Your task to perform on an android device: allow notifications from all sites in the chrome app Image 0: 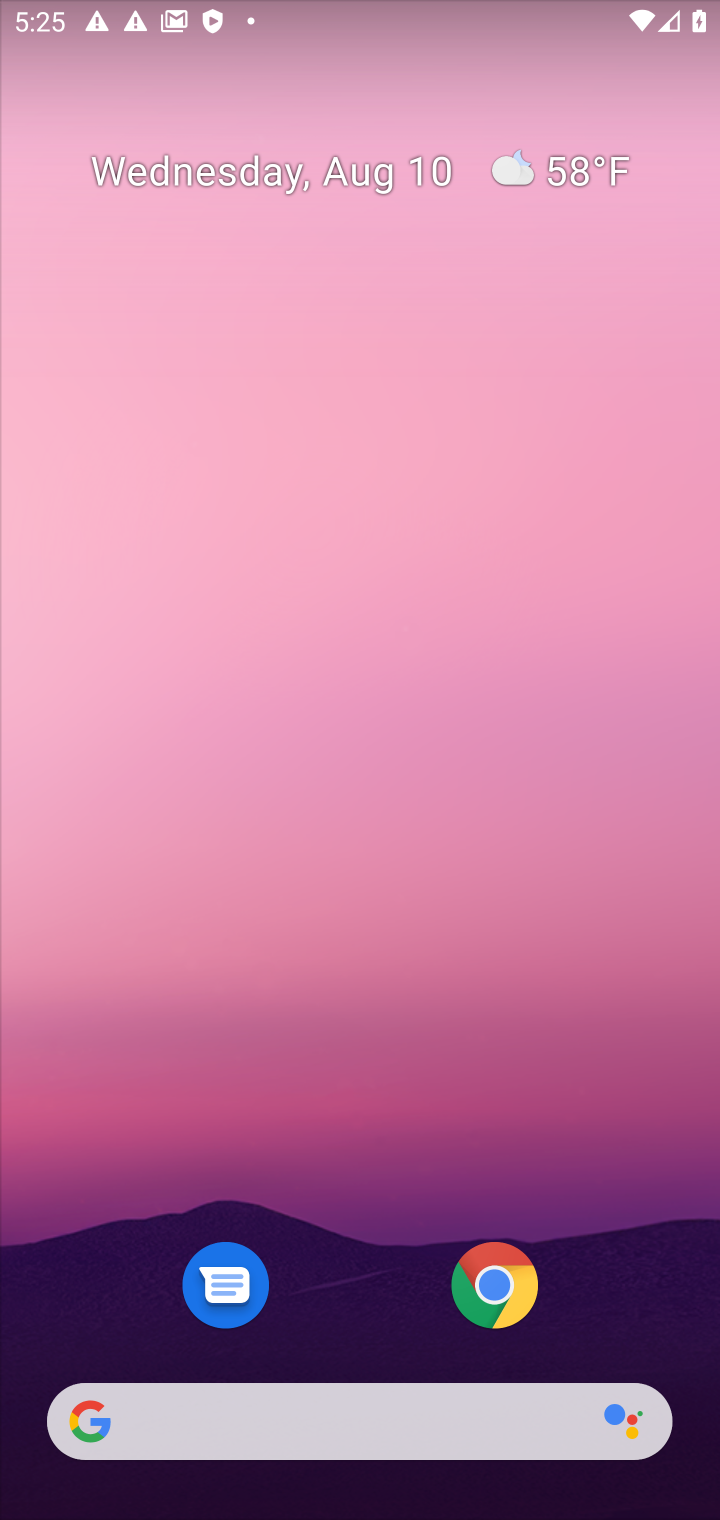
Step 0: click (515, 1303)
Your task to perform on an android device: allow notifications from all sites in the chrome app Image 1: 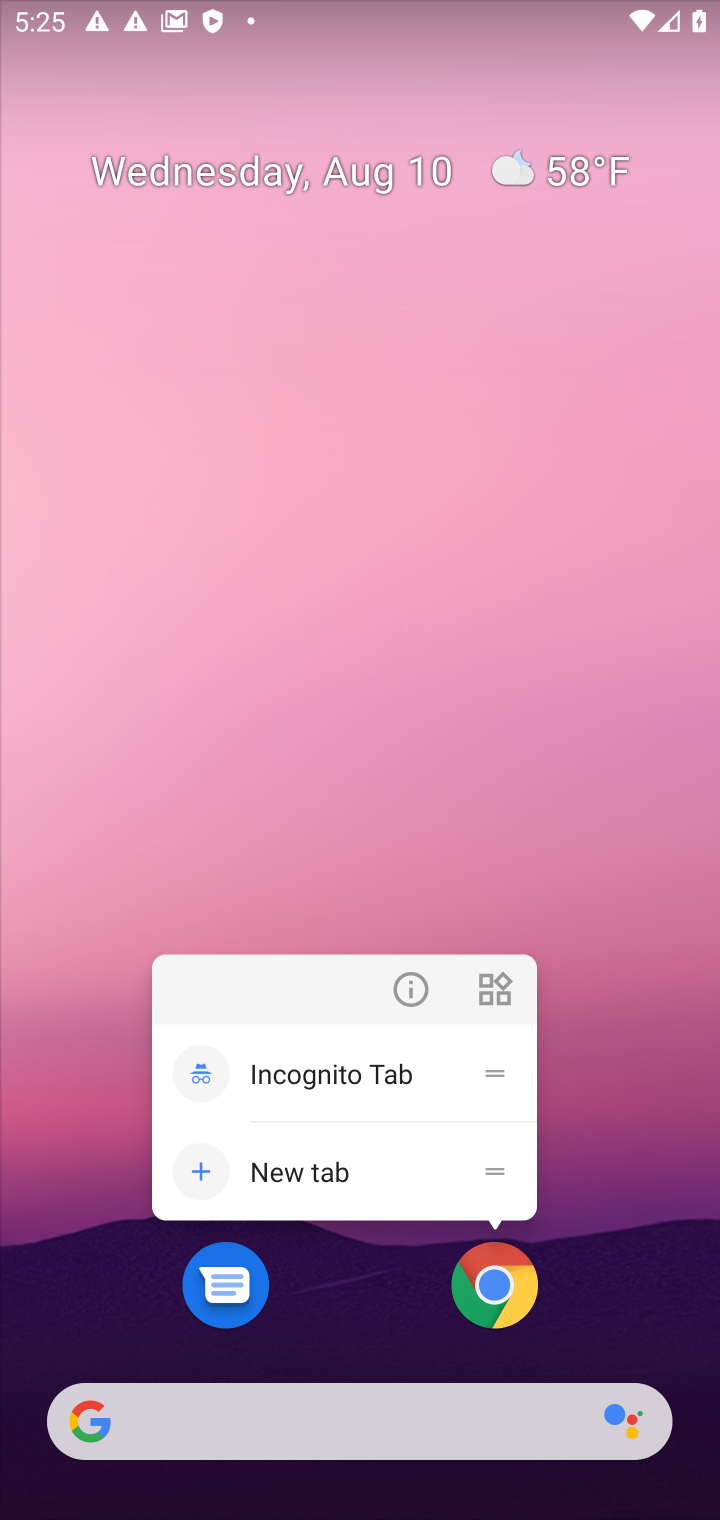
Step 1: click (404, 1002)
Your task to perform on an android device: allow notifications from all sites in the chrome app Image 2: 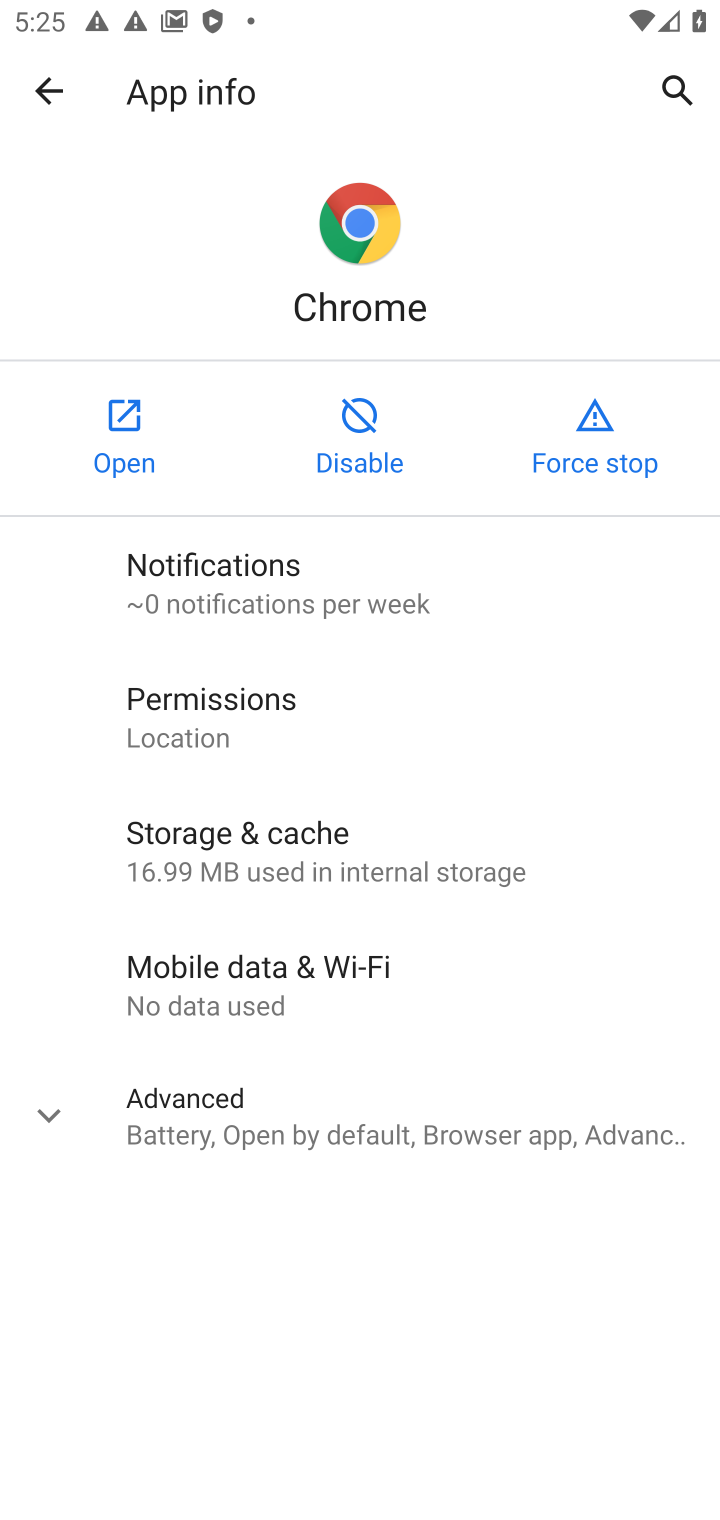
Step 2: click (245, 698)
Your task to perform on an android device: allow notifications from all sites in the chrome app Image 3: 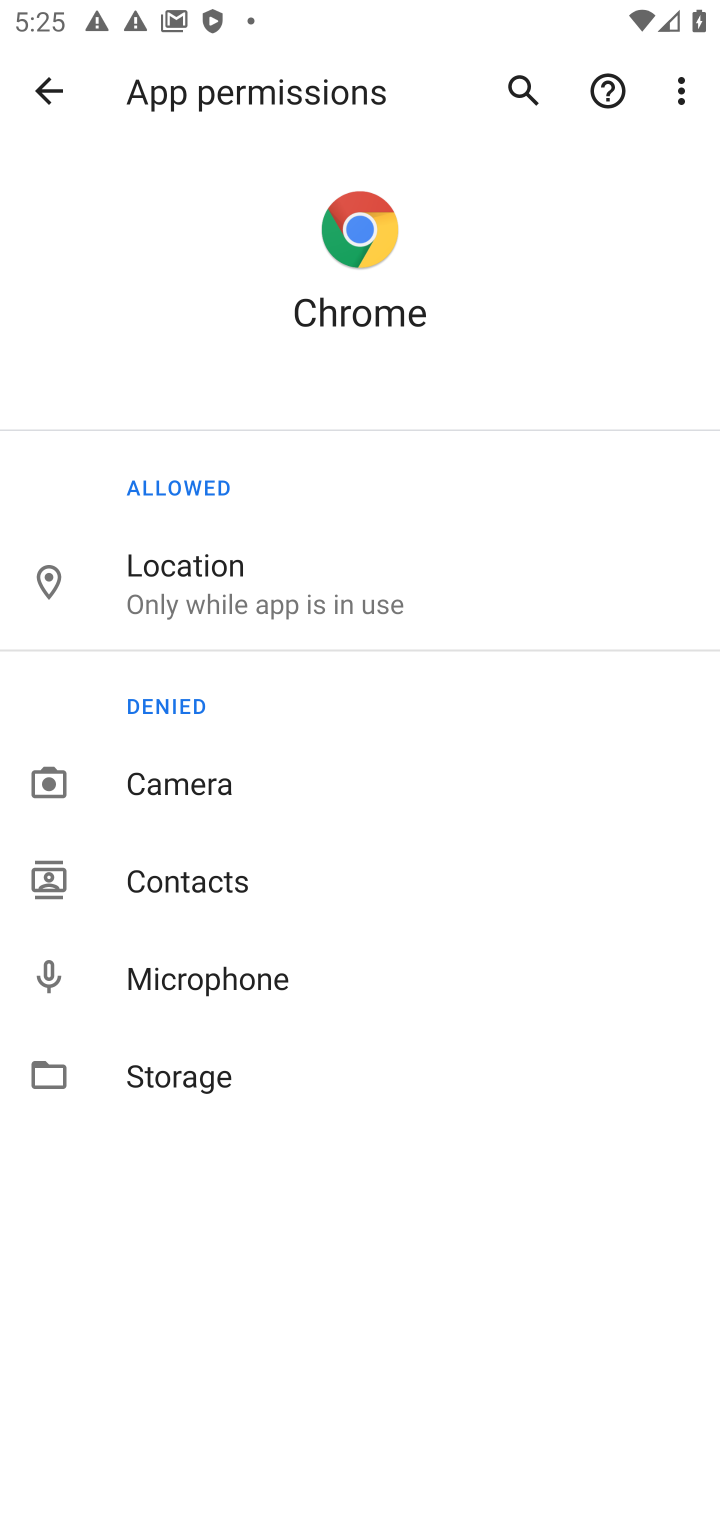
Step 3: click (158, 1001)
Your task to perform on an android device: allow notifications from all sites in the chrome app Image 4: 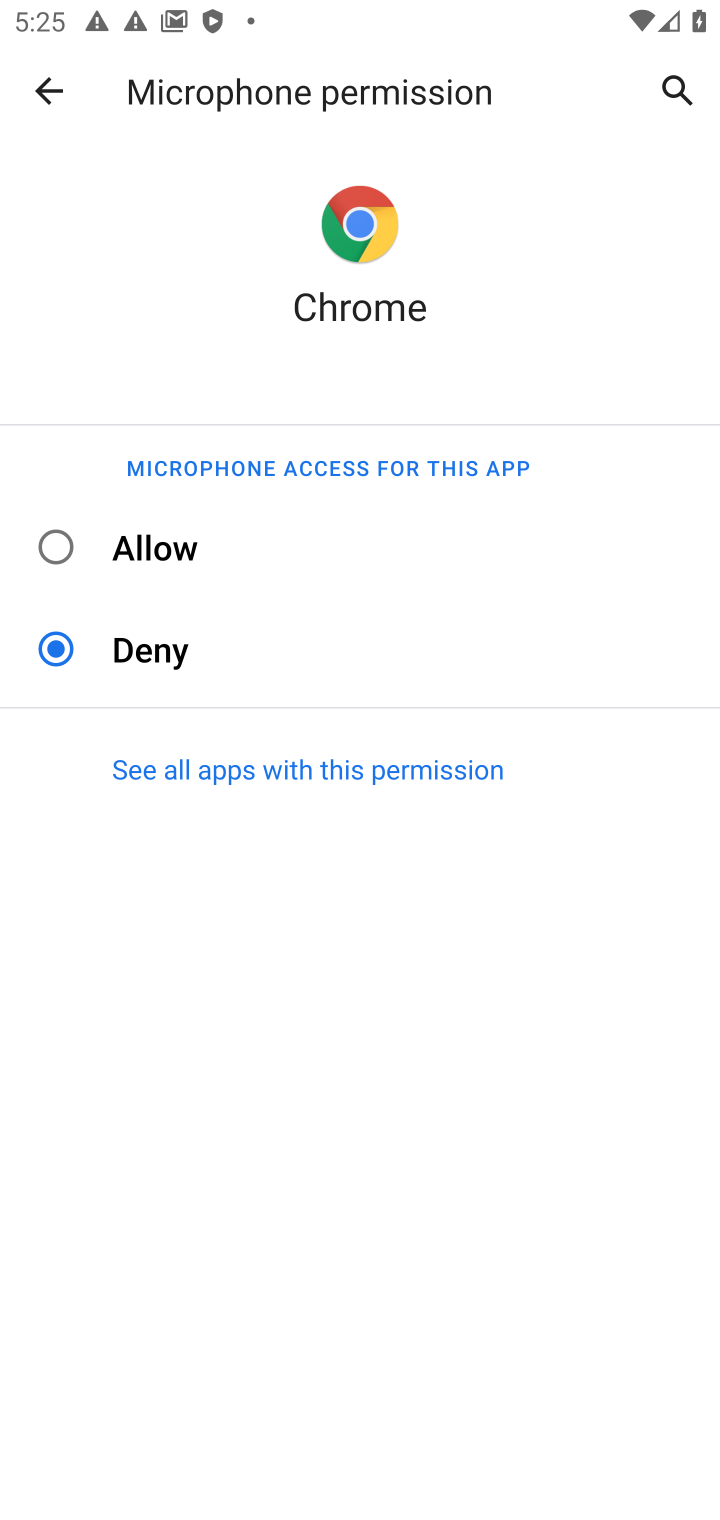
Step 4: click (135, 581)
Your task to perform on an android device: allow notifications from all sites in the chrome app Image 5: 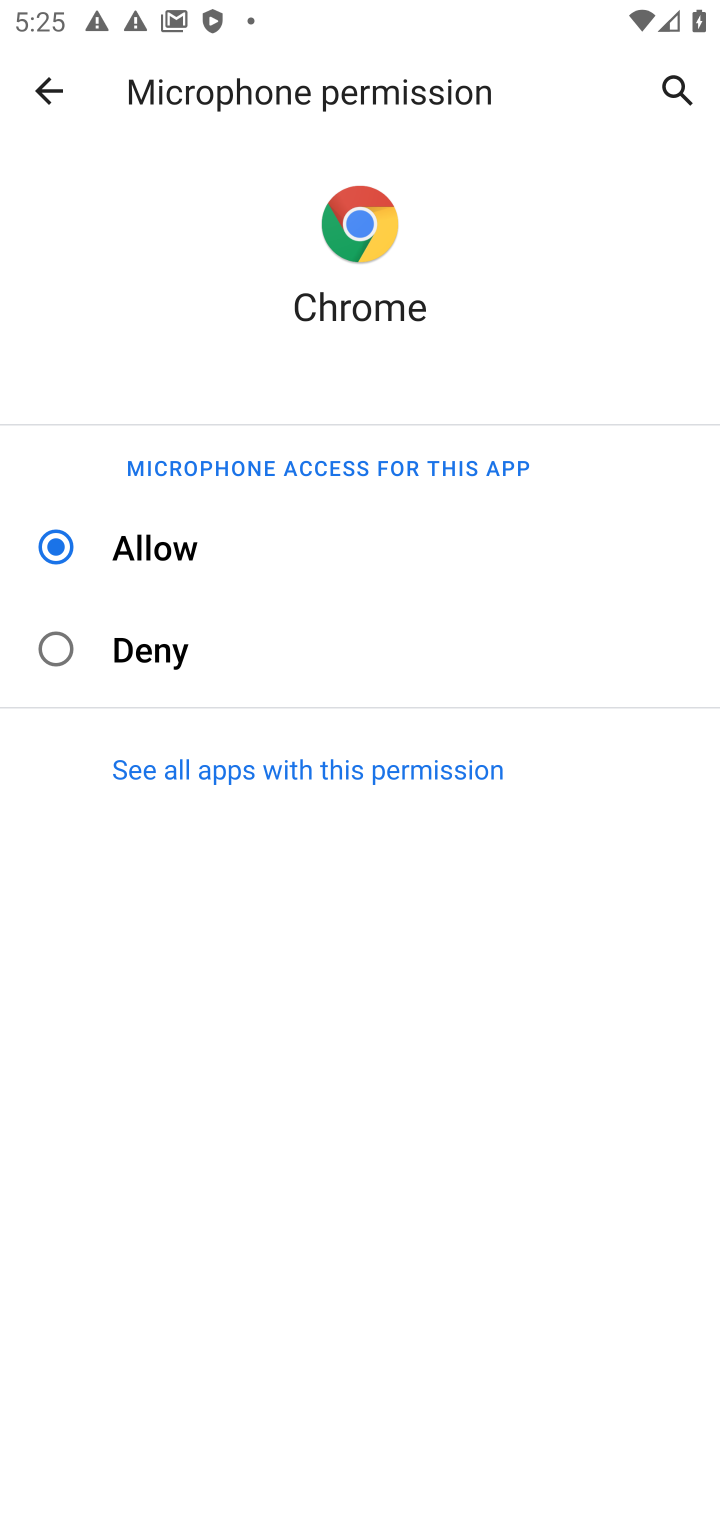
Step 5: click (53, 79)
Your task to perform on an android device: allow notifications from all sites in the chrome app Image 6: 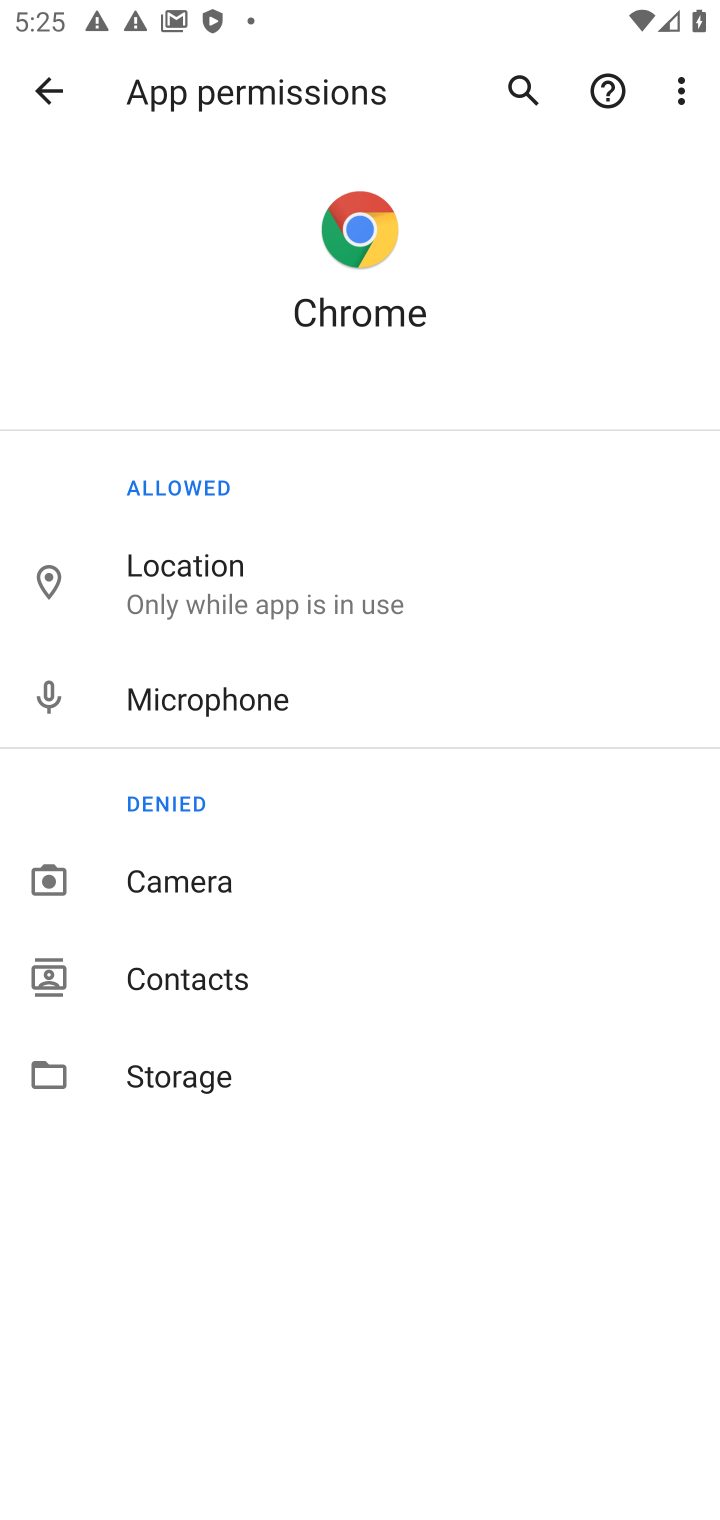
Step 6: click (173, 881)
Your task to perform on an android device: allow notifications from all sites in the chrome app Image 7: 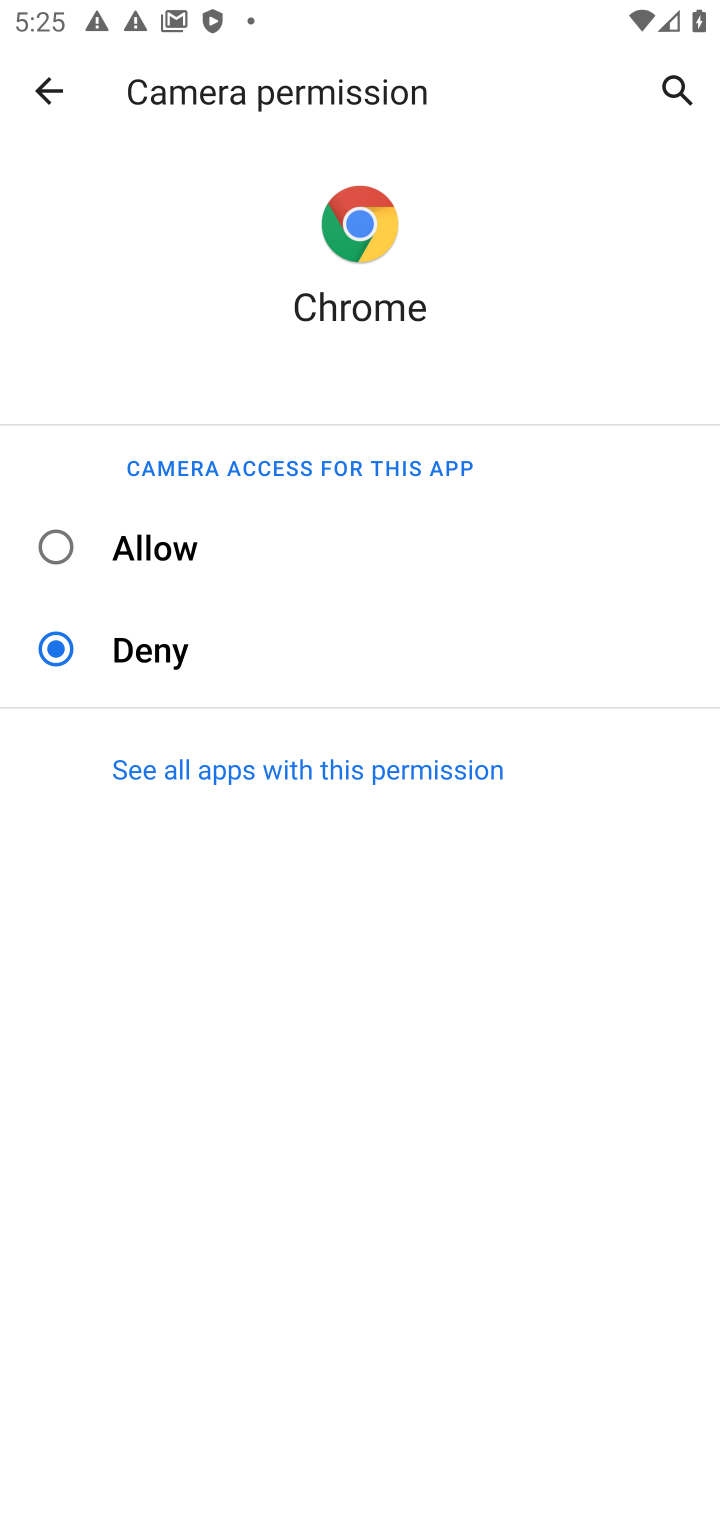
Step 7: click (66, 561)
Your task to perform on an android device: allow notifications from all sites in the chrome app Image 8: 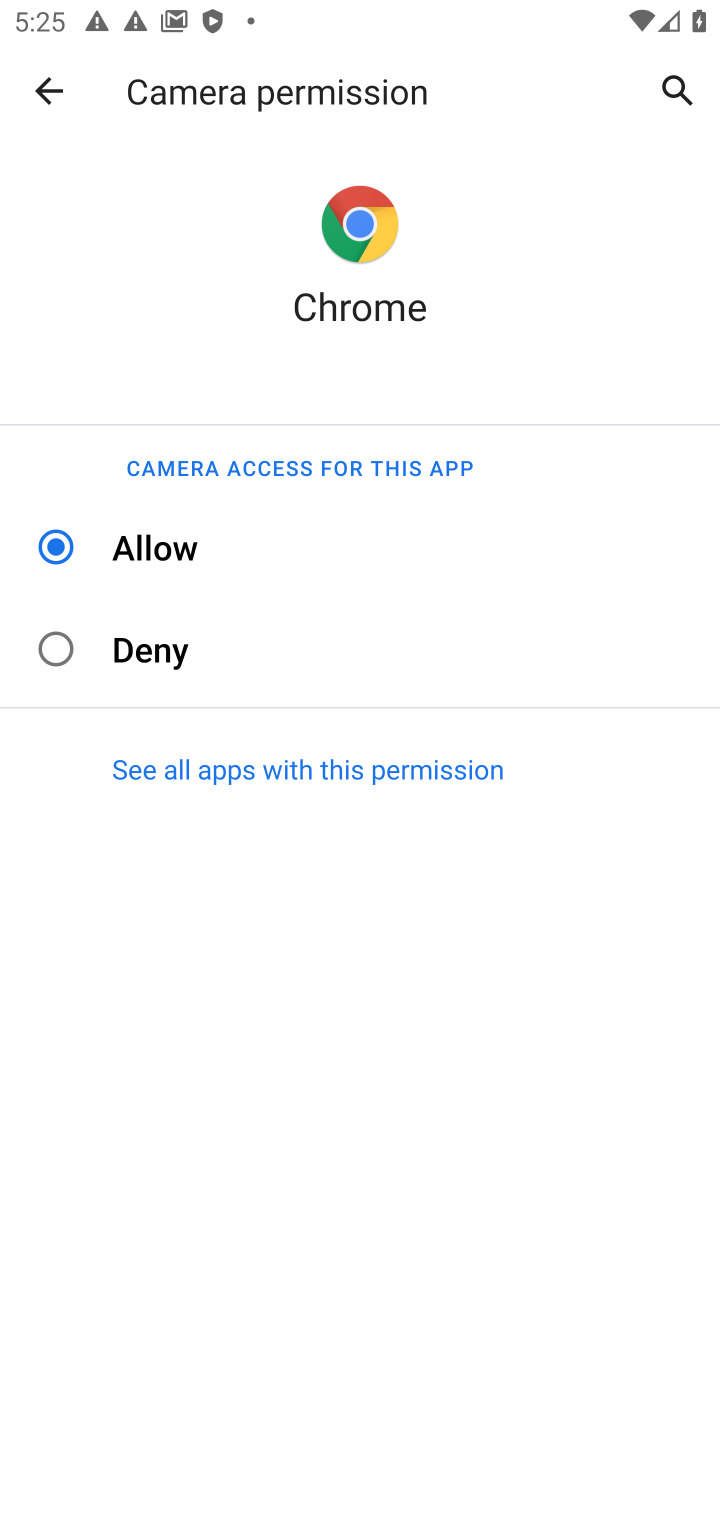
Step 8: click (54, 77)
Your task to perform on an android device: allow notifications from all sites in the chrome app Image 9: 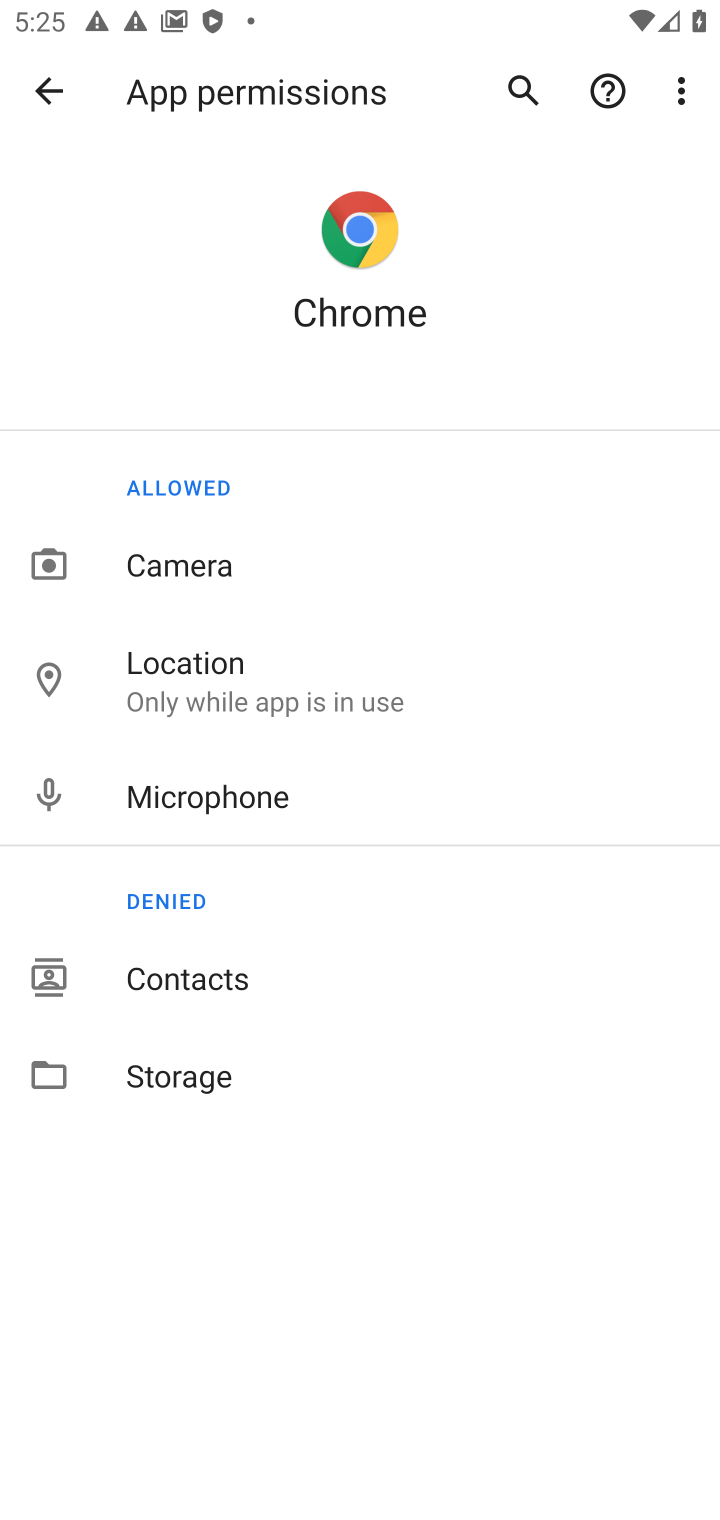
Step 9: click (216, 968)
Your task to perform on an android device: allow notifications from all sites in the chrome app Image 10: 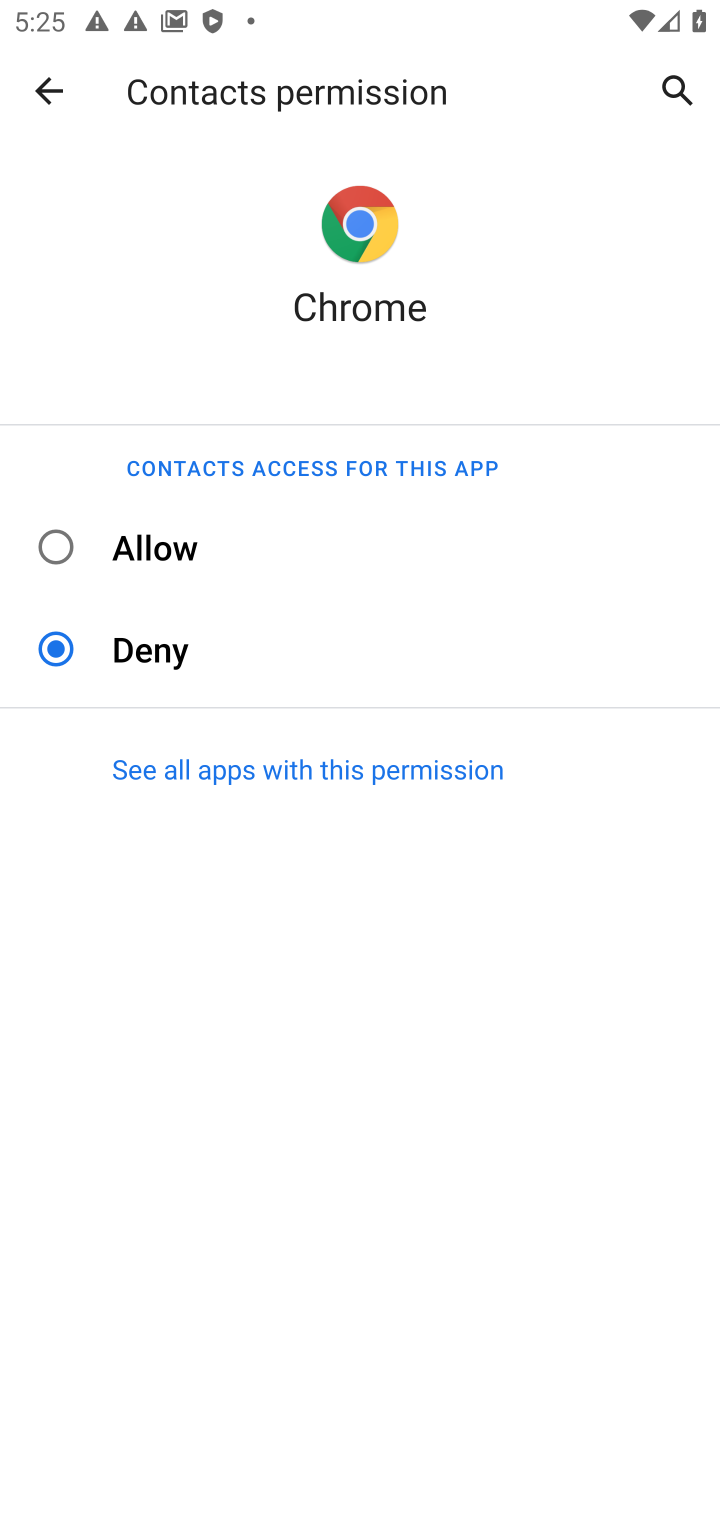
Step 10: click (113, 536)
Your task to perform on an android device: allow notifications from all sites in the chrome app Image 11: 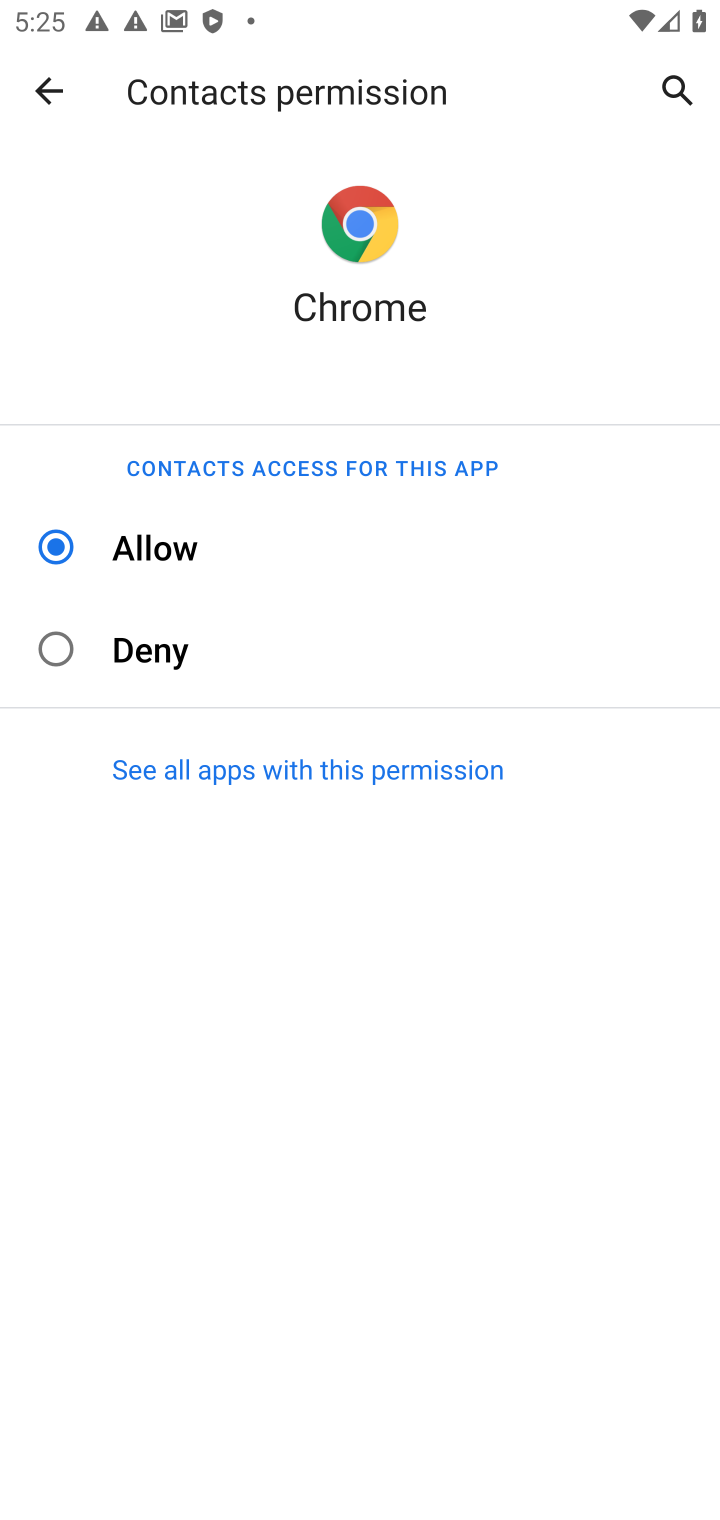
Step 11: click (66, 96)
Your task to perform on an android device: allow notifications from all sites in the chrome app Image 12: 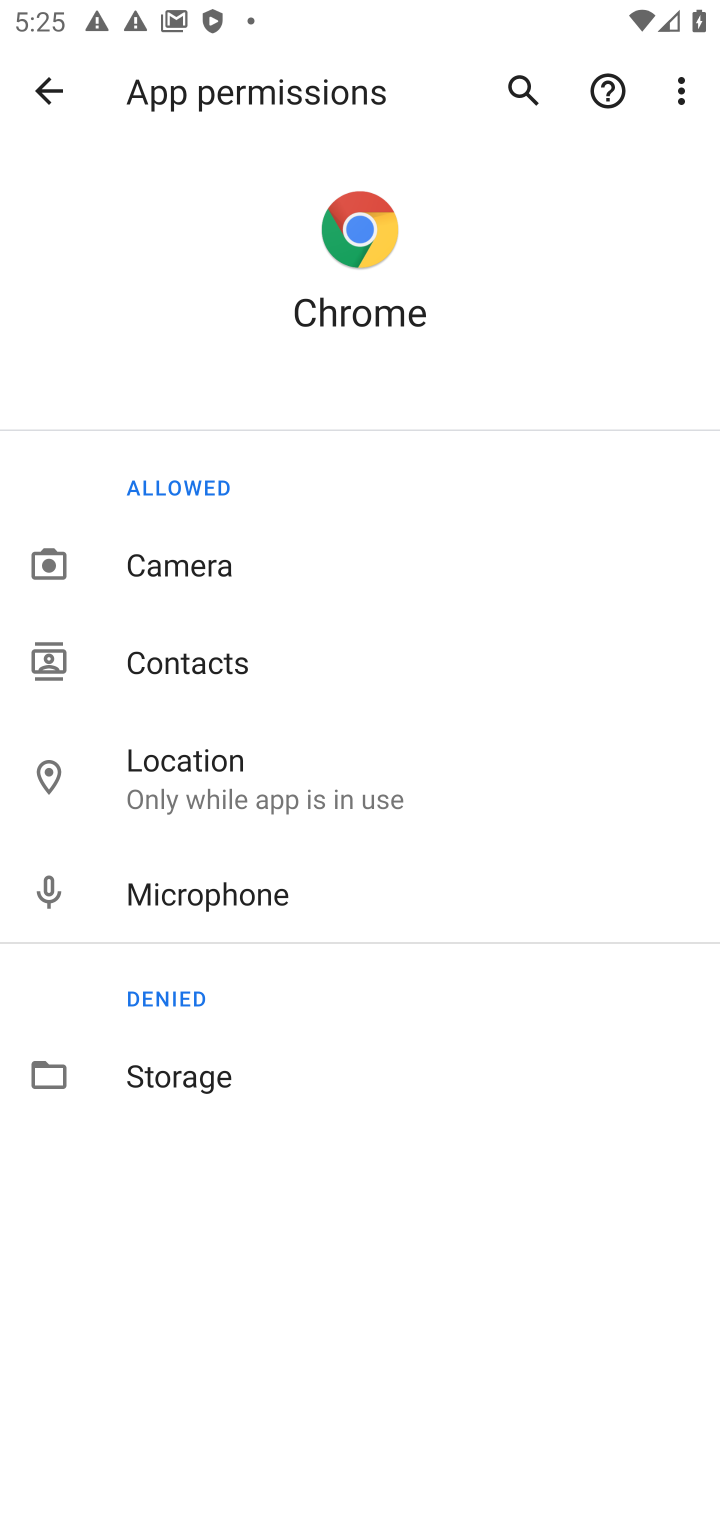
Step 12: click (169, 1081)
Your task to perform on an android device: allow notifications from all sites in the chrome app Image 13: 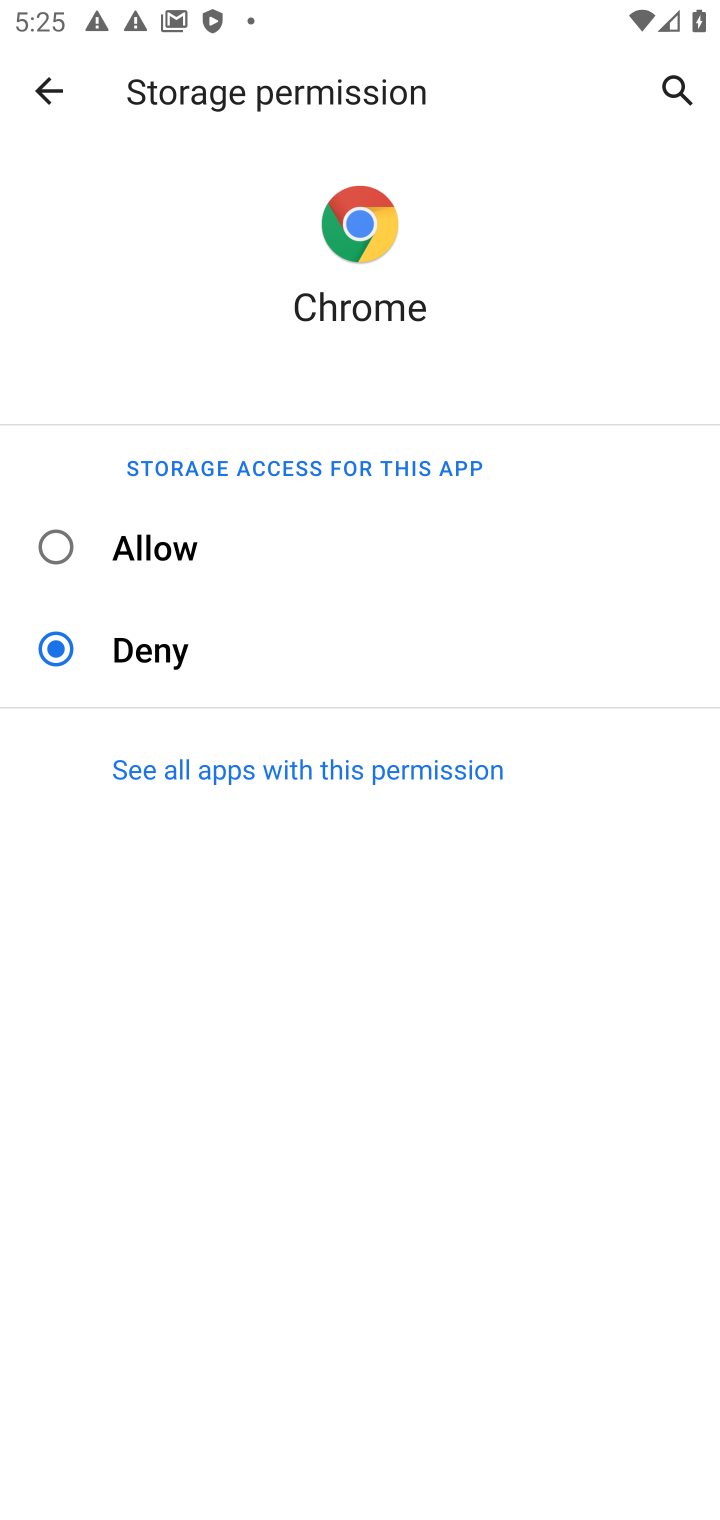
Step 13: click (120, 552)
Your task to perform on an android device: allow notifications from all sites in the chrome app Image 14: 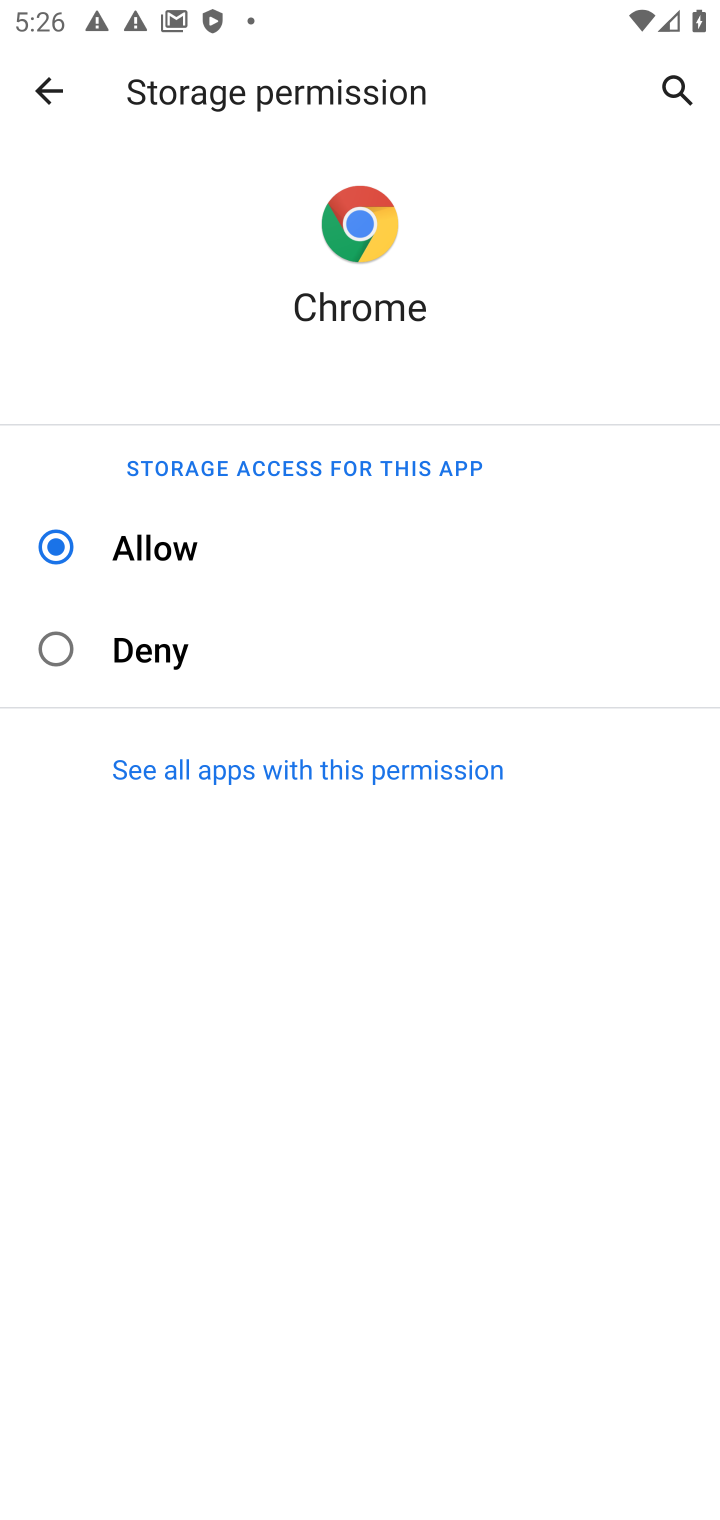
Step 14: click (53, 89)
Your task to perform on an android device: allow notifications from all sites in the chrome app Image 15: 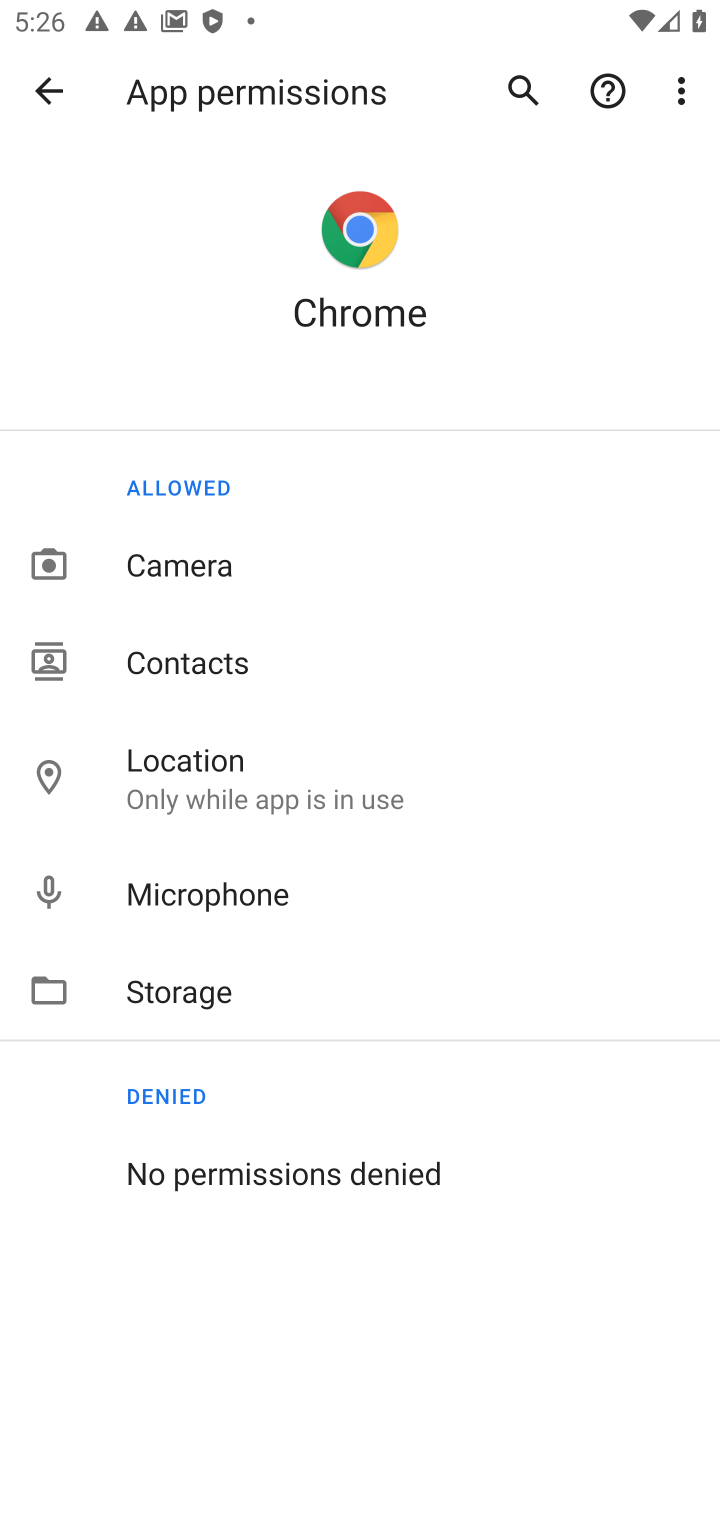
Step 15: task complete